Your task to perform on an android device: turn off airplane mode Image 0: 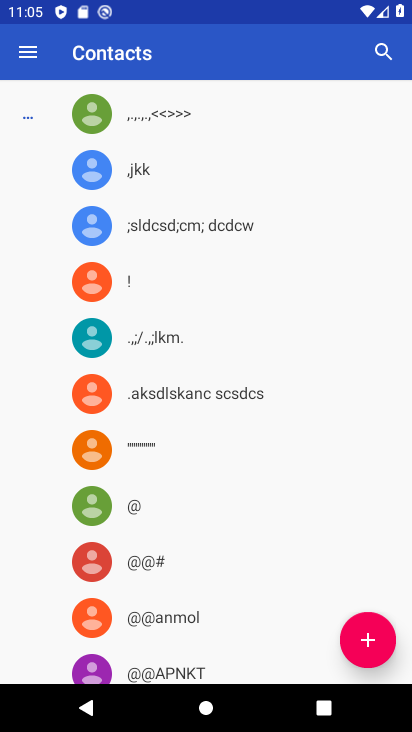
Step 0: press home button
Your task to perform on an android device: turn off airplane mode Image 1: 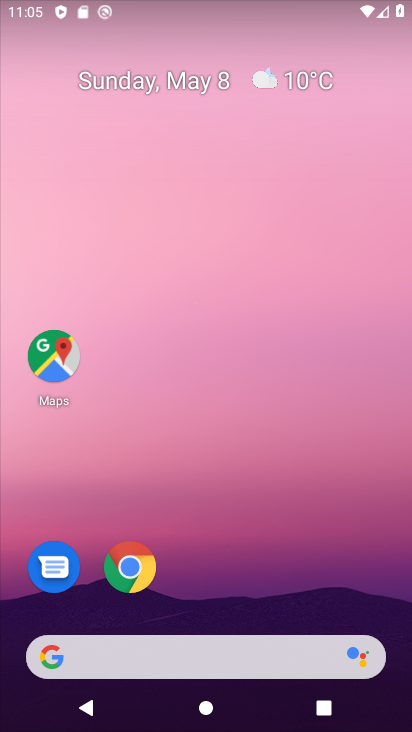
Step 1: drag from (141, 597) to (183, 167)
Your task to perform on an android device: turn off airplane mode Image 2: 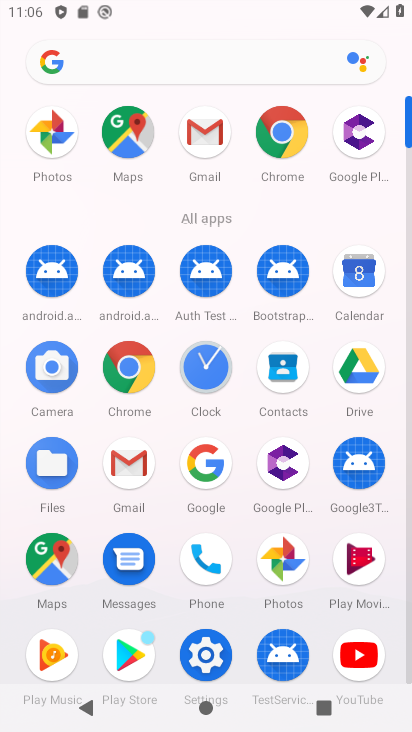
Step 2: drag from (251, 503) to (236, 99)
Your task to perform on an android device: turn off airplane mode Image 3: 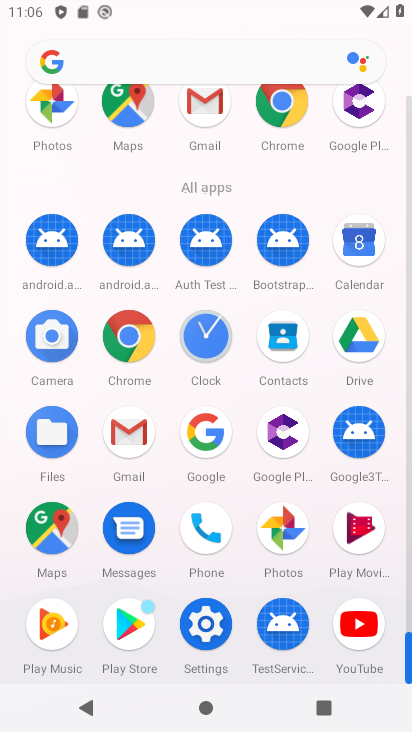
Step 3: click (198, 641)
Your task to perform on an android device: turn off airplane mode Image 4: 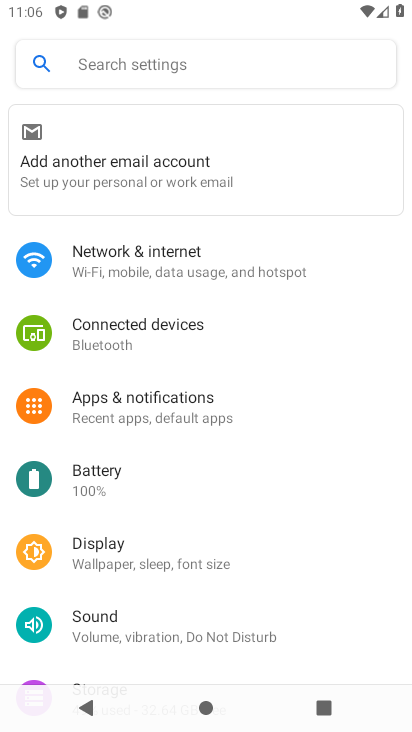
Step 4: click (316, 292)
Your task to perform on an android device: turn off airplane mode Image 5: 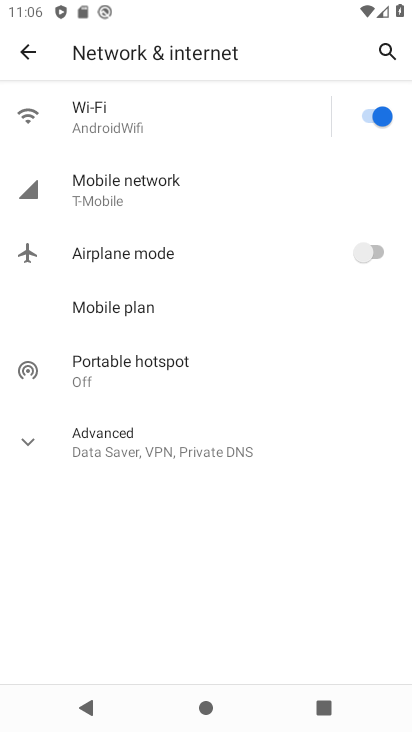
Step 5: task complete